Your task to perform on an android device: Open calendar and show me the second week of next month Image 0: 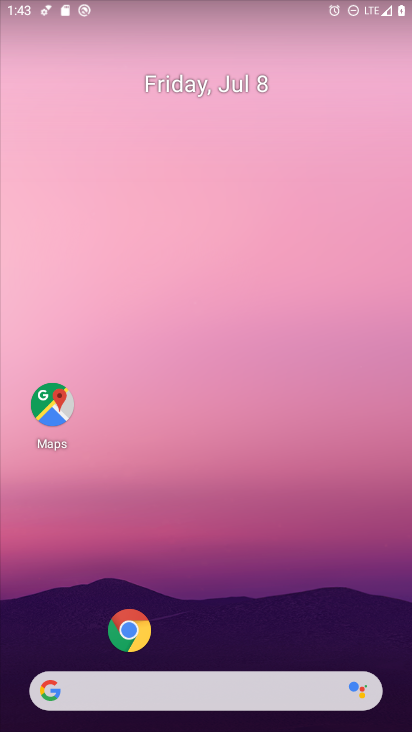
Step 0: drag from (308, 695) to (349, 114)
Your task to perform on an android device: Open calendar and show me the second week of next month Image 1: 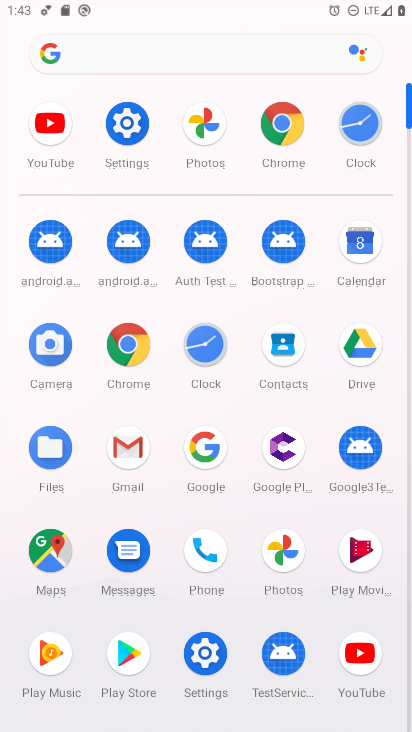
Step 1: click (372, 238)
Your task to perform on an android device: Open calendar and show me the second week of next month Image 2: 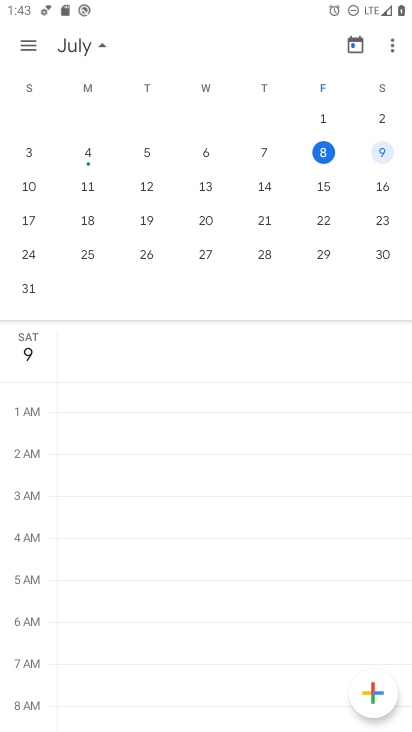
Step 2: drag from (380, 224) to (1, 235)
Your task to perform on an android device: Open calendar and show me the second week of next month Image 3: 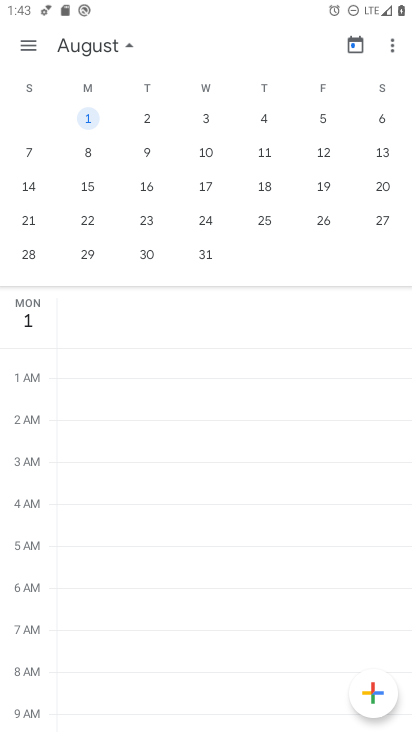
Step 3: click (201, 152)
Your task to perform on an android device: Open calendar and show me the second week of next month Image 4: 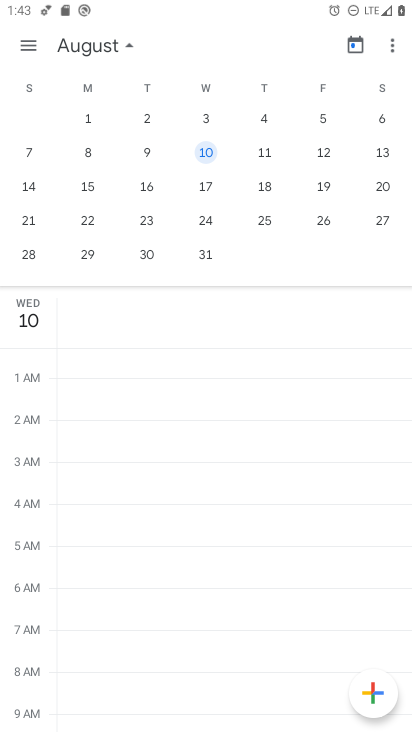
Step 4: click (22, 41)
Your task to perform on an android device: Open calendar and show me the second week of next month Image 5: 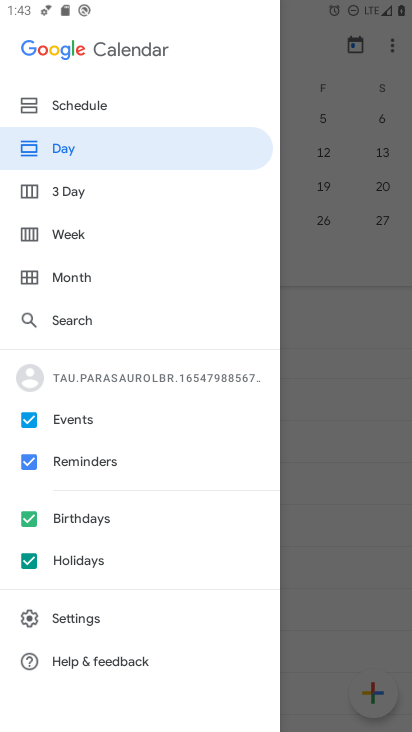
Step 5: click (104, 241)
Your task to perform on an android device: Open calendar and show me the second week of next month Image 6: 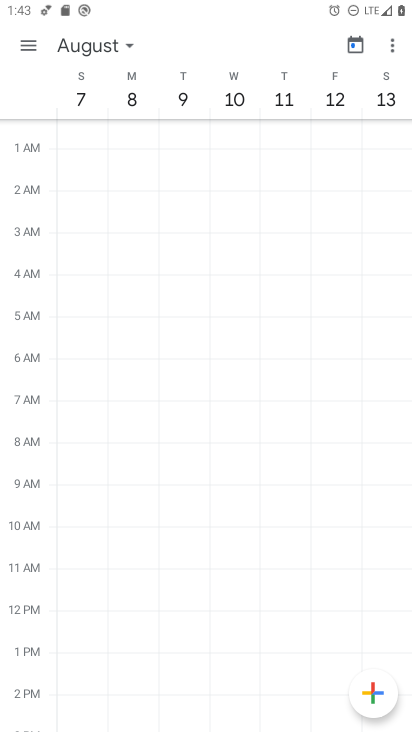
Step 6: task complete